Your task to perform on an android device: add a contact in the contacts app Image 0: 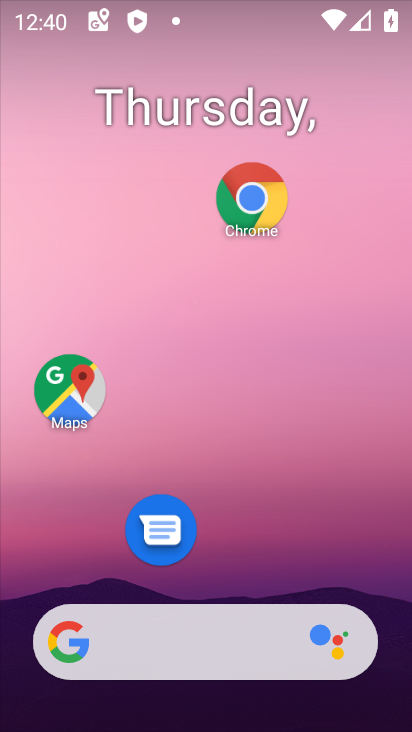
Step 0: drag from (223, 605) to (147, 26)
Your task to perform on an android device: add a contact in the contacts app Image 1: 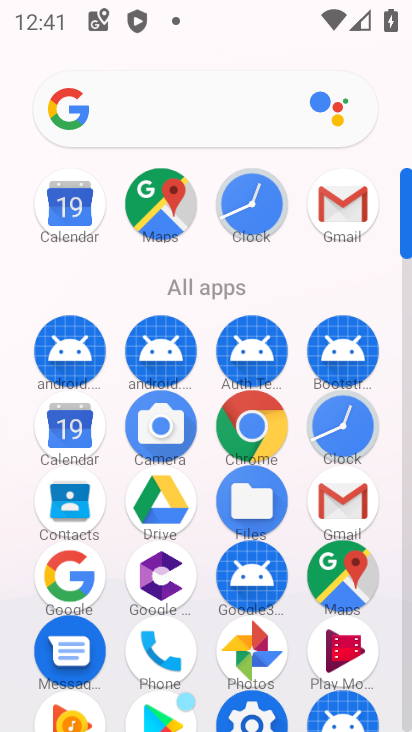
Step 1: click (174, 635)
Your task to perform on an android device: add a contact in the contacts app Image 2: 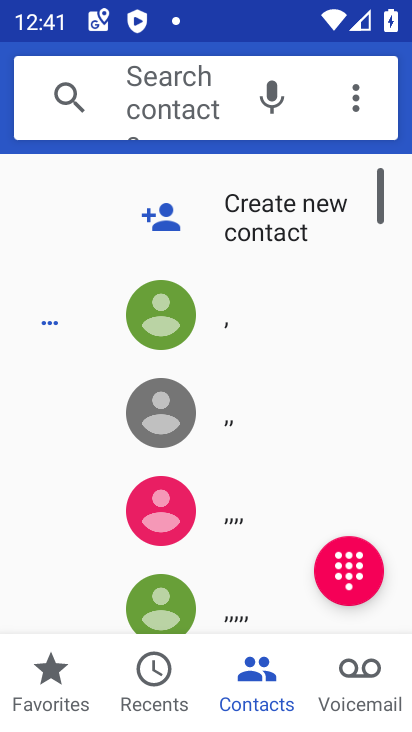
Step 2: click (258, 199)
Your task to perform on an android device: add a contact in the contacts app Image 3: 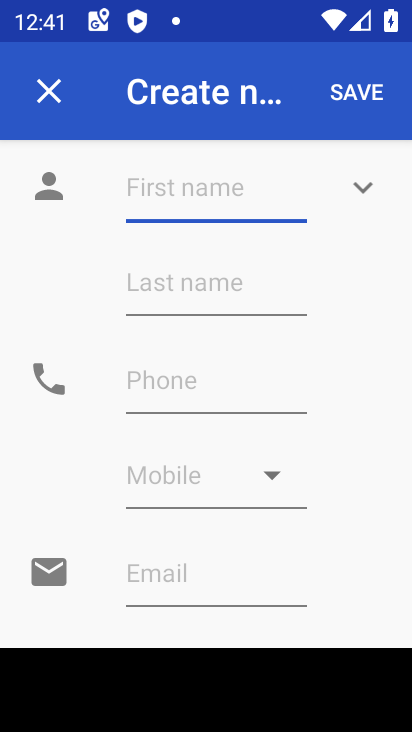
Step 3: type "mk"
Your task to perform on an android device: add a contact in the contacts app Image 4: 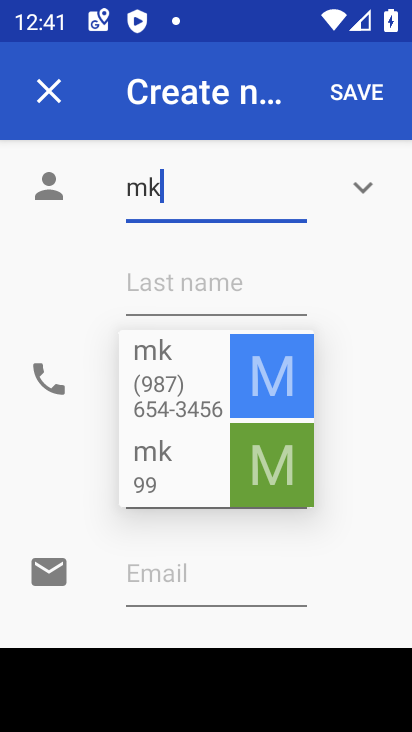
Step 4: click (183, 399)
Your task to perform on an android device: add a contact in the contacts app Image 5: 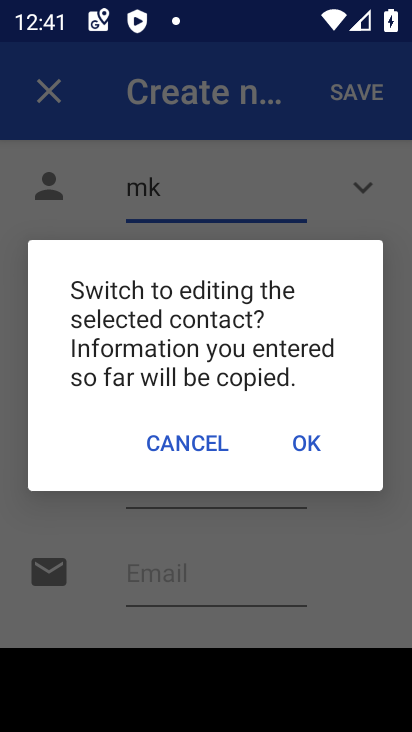
Step 5: click (321, 440)
Your task to perform on an android device: add a contact in the contacts app Image 6: 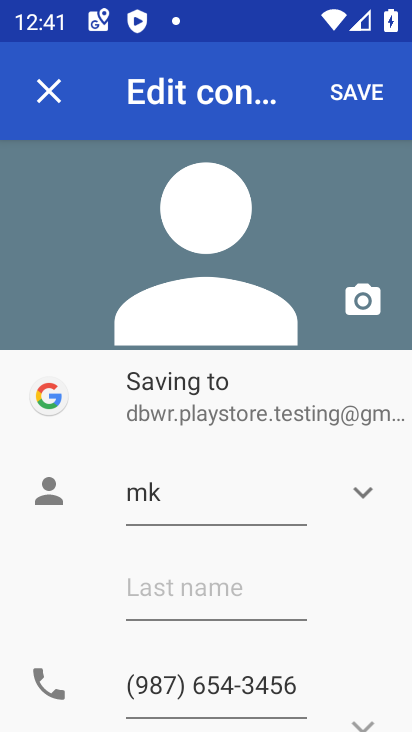
Step 6: click (339, 92)
Your task to perform on an android device: add a contact in the contacts app Image 7: 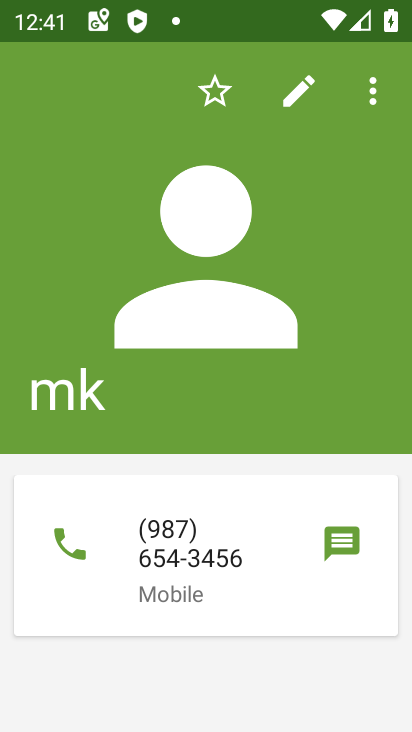
Step 7: task complete